Your task to perform on an android device: Open the web browser Image 0: 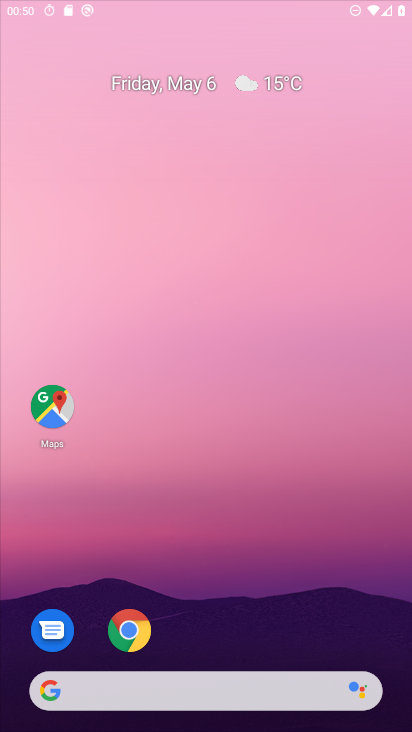
Step 0: drag from (359, 613) to (306, 125)
Your task to perform on an android device: Open the web browser Image 1: 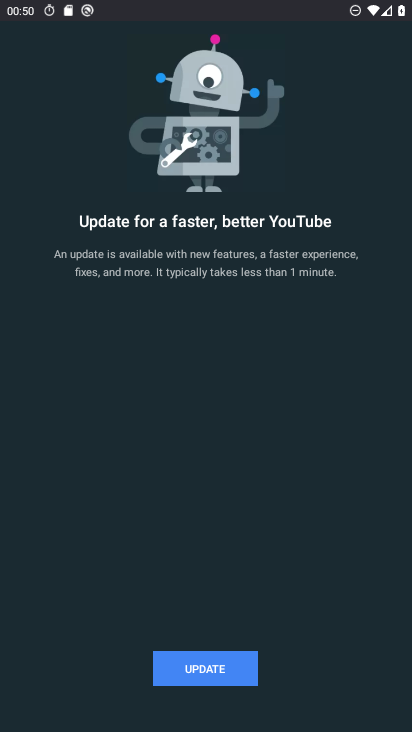
Step 1: press home button
Your task to perform on an android device: Open the web browser Image 2: 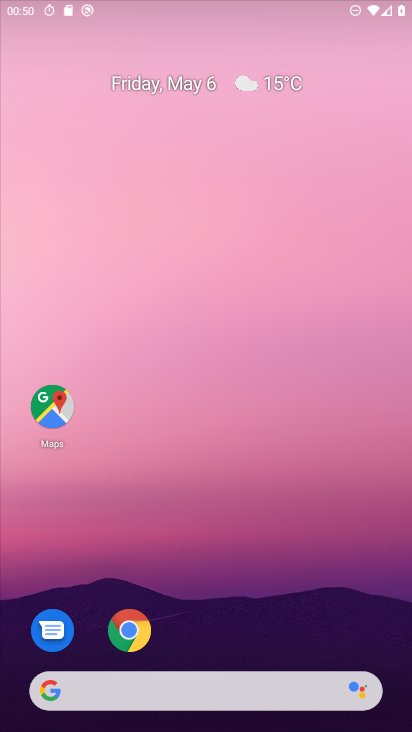
Step 2: click (281, 636)
Your task to perform on an android device: Open the web browser Image 3: 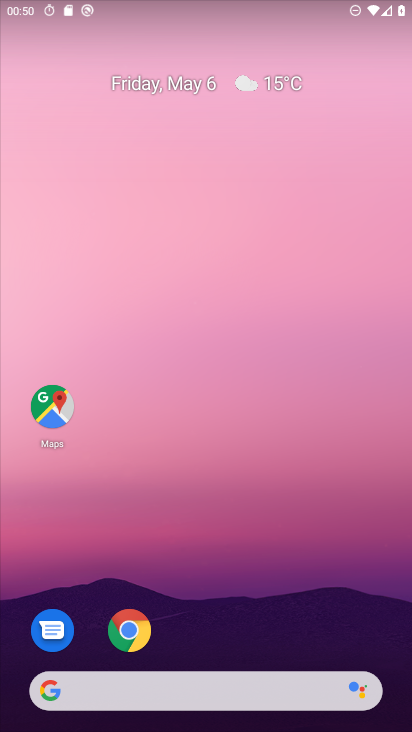
Step 3: click (135, 634)
Your task to perform on an android device: Open the web browser Image 4: 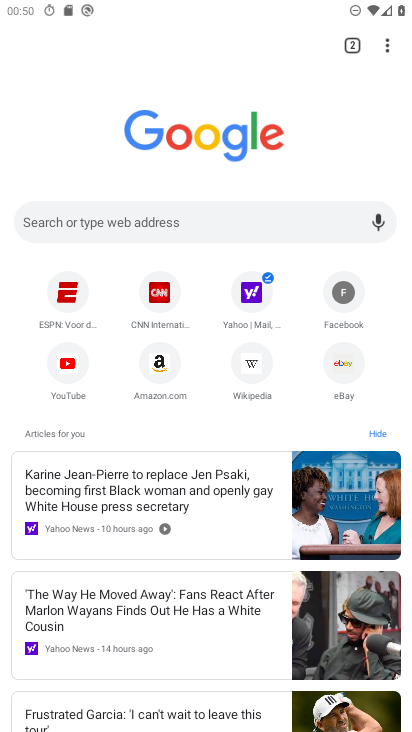
Step 4: task complete